Your task to perform on an android device: What's the weather today? Image 0: 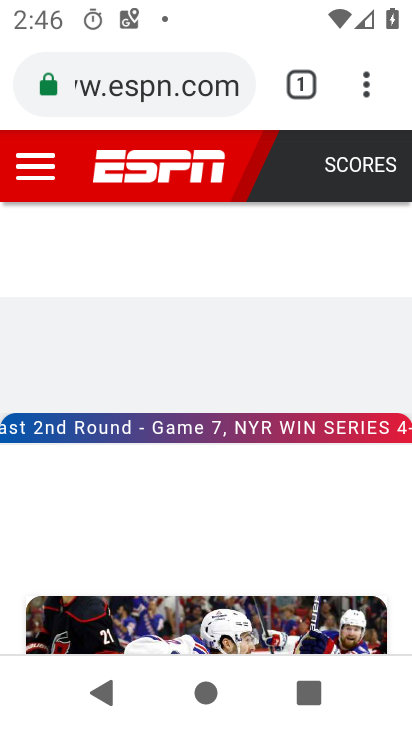
Step 0: press home button
Your task to perform on an android device: What's the weather today? Image 1: 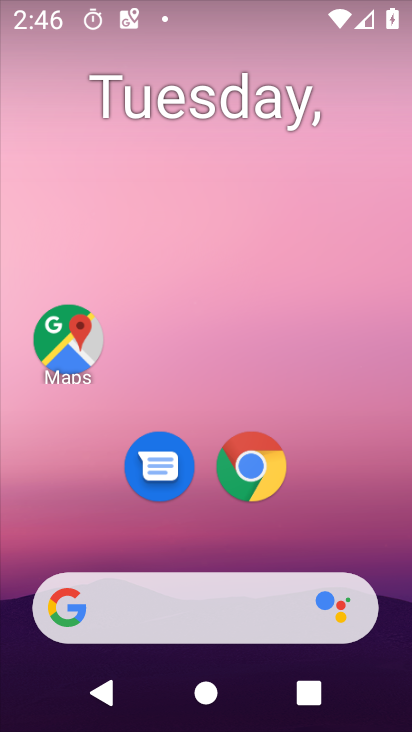
Step 1: click (251, 592)
Your task to perform on an android device: What's the weather today? Image 2: 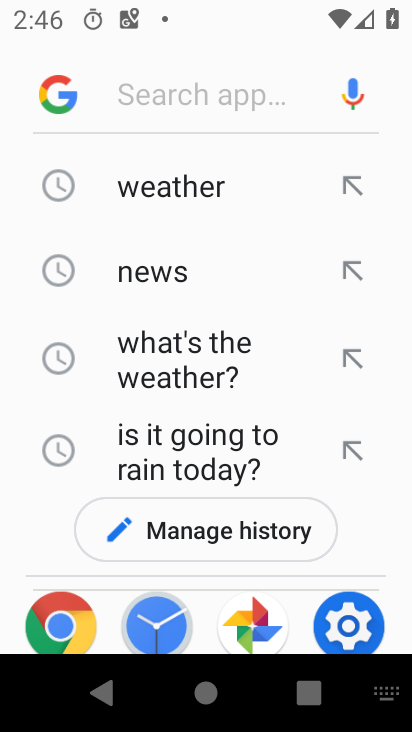
Step 2: click (203, 193)
Your task to perform on an android device: What's the weather today? Image 3: 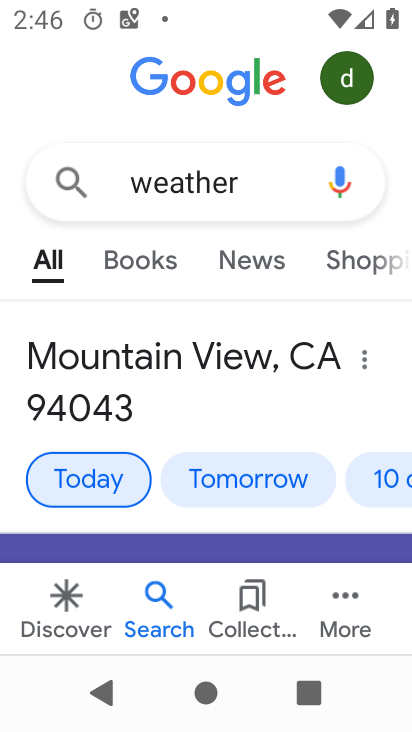
Step 3: task complete